Your task to perform on an android device: Set the phone to "Do not disturb". Image 0: 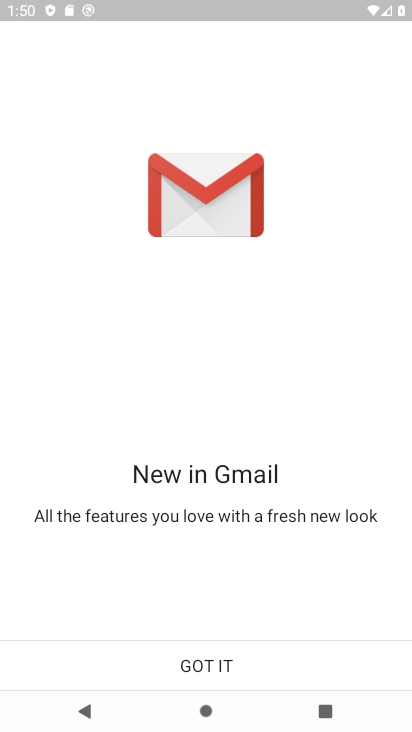
Step 0: press home button
Your task to perform on an android device: Set the phone to "Do not disturb". Image 1: 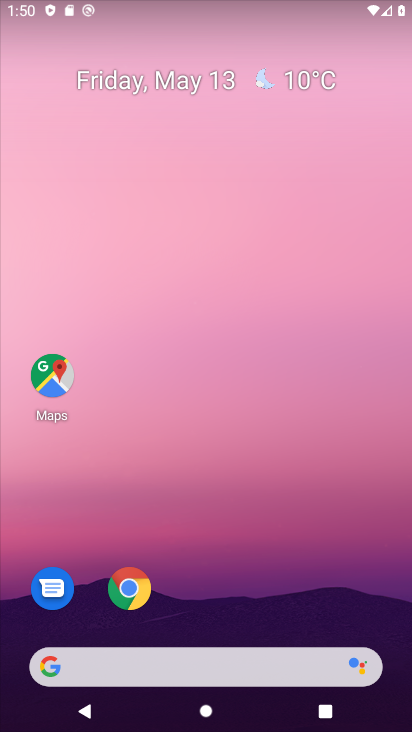
Step 1: drag from (264, 4) to (247, 551)
Your task to perform on an android device: Set the phone to "Do not disturb". Image 2: 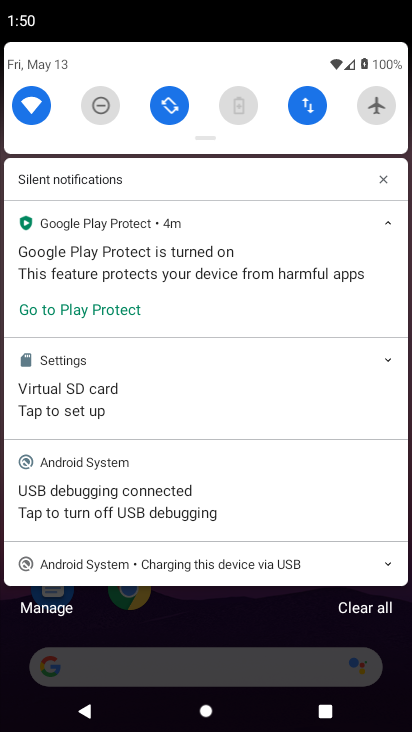
Step 2: click (103, 107)
Your task to perform on an android device: Set the phone to "Do not disturb". Image 3: 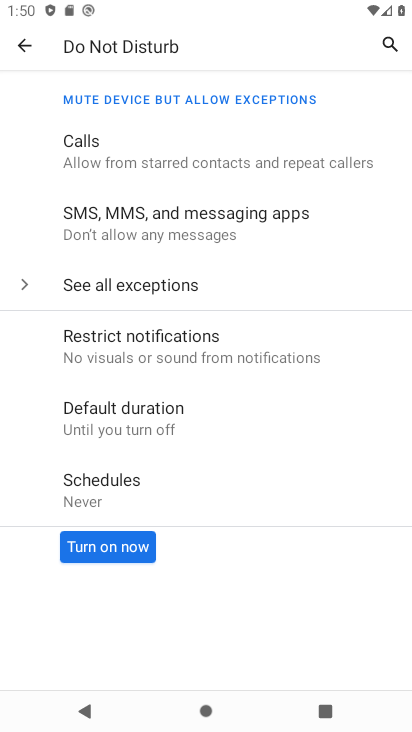
Step 3: click (94, 537)
Your task to perform on an android device: Set the phone to "Do not disturb". Image 4: 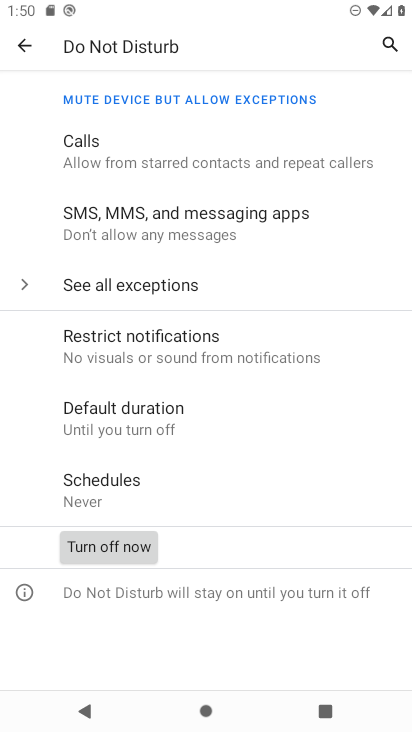
Step 4: task complete